Your task to perform on an android device: turn off location Image 0: 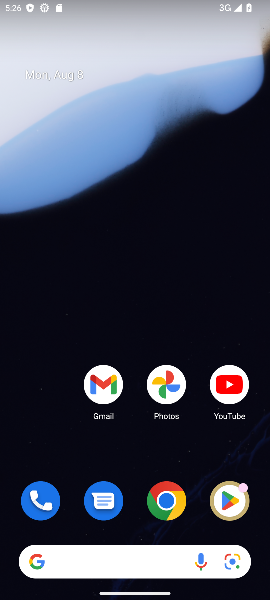
Step 0: drag from (13, 577) to (103, 291)
Your task to perform on an android device: turn off location Image 1: 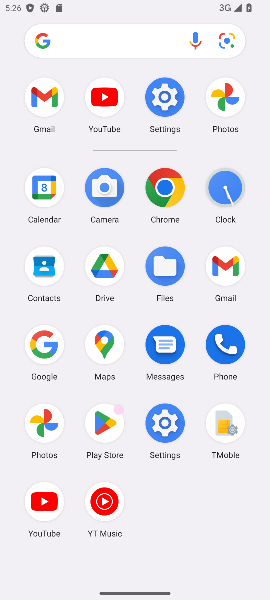
Step 1: click (161, 435)
Your task to perform on an android device: turn off location Image 2: 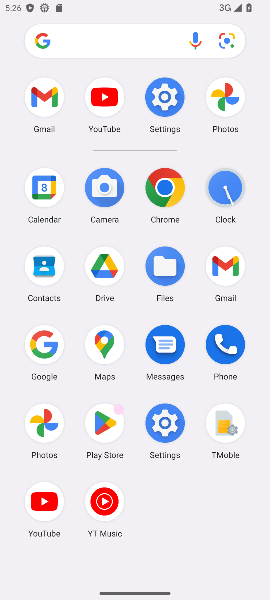
Step 2: click (161, 435)
Your task to perform on an android device: turn off location Image 3: 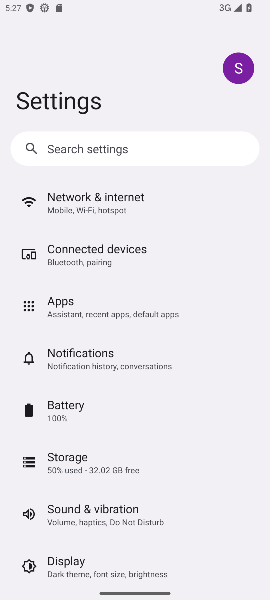
Step 3: drag from (205, 527) to (224, 237)
Your task to perform on an android device: turn off location Image 4: 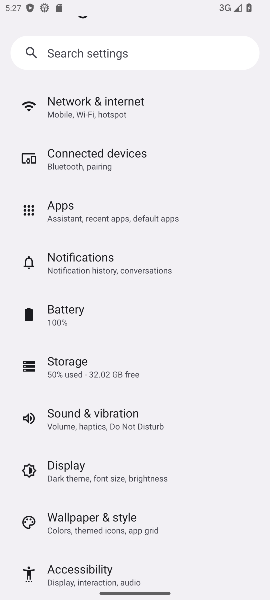
Step 4: drag from (169, 532) to (185, 335)
Your task to perform on an android device: turn off location Image 5: 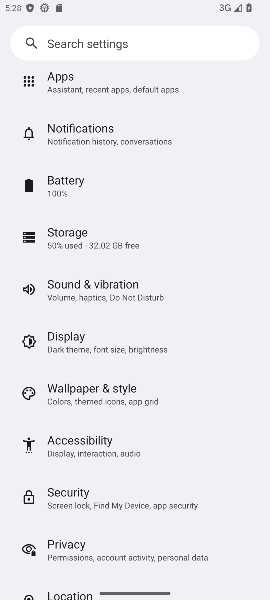
Step 5: click (244, 557)
Your task to perform on an android device: turn off location Image 6: 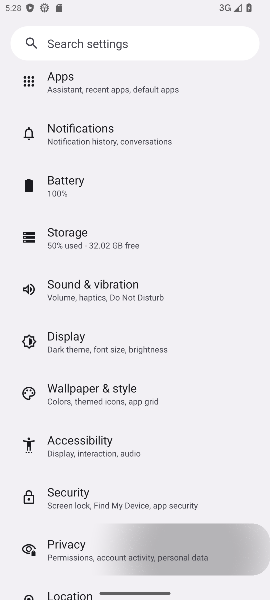
Step 6: drag from (241, 559) to (234, 396)
Your task to perform on an android device: turn off location Image 7: 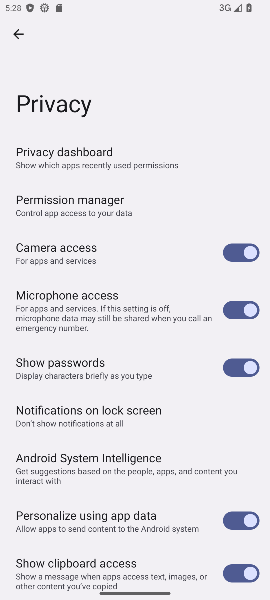
Step 7: click (17, 37)
Your task to perform on an android device: turn off location Image 8: 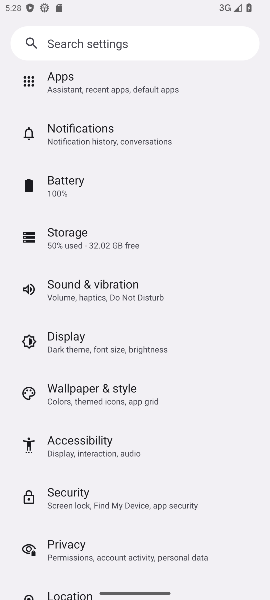
Step 8: click (63, 589)
Your task to perform on an android device: turn off location Image 9: 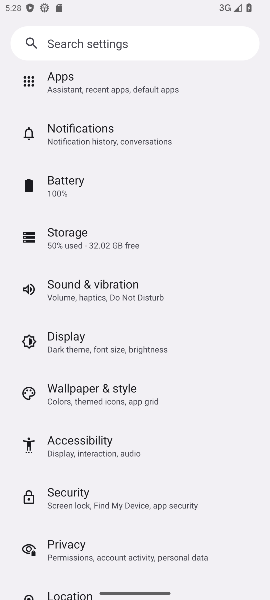
Step 9: click (68, 593)
Your task to perform on an android device: turn off location Image 10: 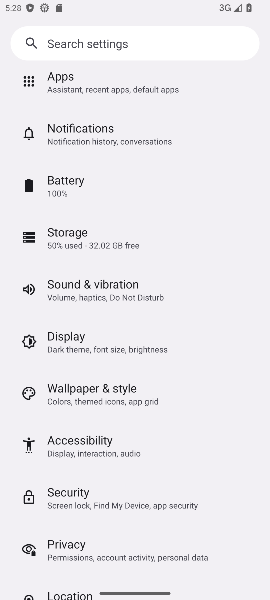
Step 10: click (68, 593)
Your task to perform on an android device: turn off location Image 11: 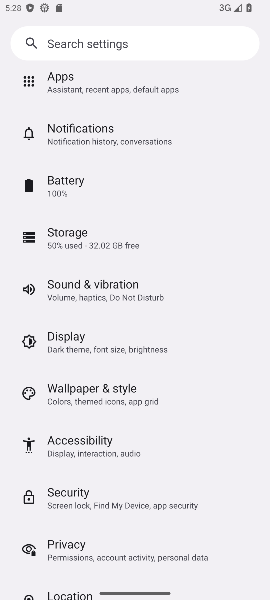
Step 11: click (226, 560)
Your task to perform on an android device: turn off location Image 12: 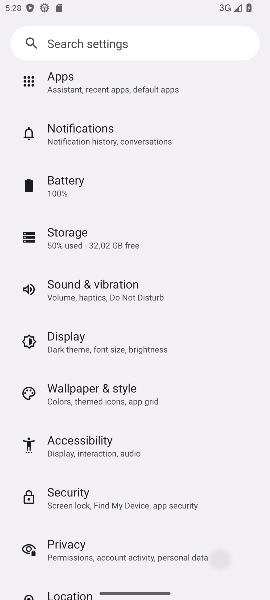
Step 12: task complete